Your task to perform on an android device: add a label to a message in the gmail app Image 0: 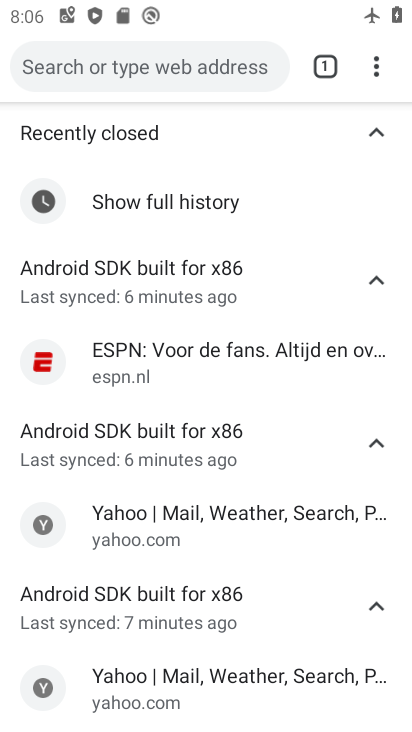
Step 0: press home button
Your task to perform on an android device: add a label to a message in the gmail app Image 1: 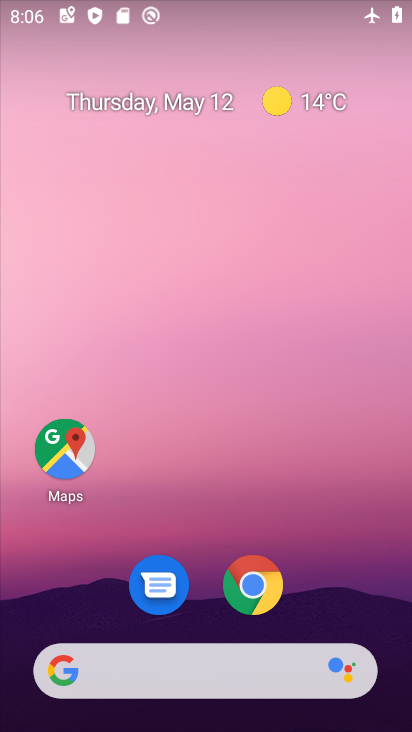
Step 1: drag from (253, 495) to (139, 39)
Your task to perform on an android device: add a label to a message in the gmail app Image 2: 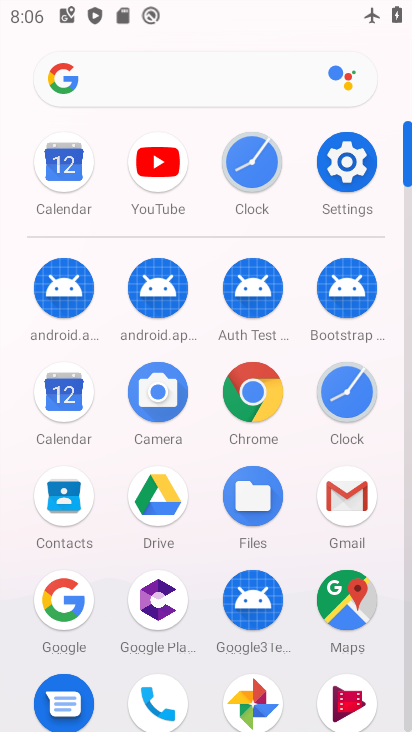
Step 2: click (332, 485)
Your task to perform on an android device: add a label to a message in the gmail app Image 3: 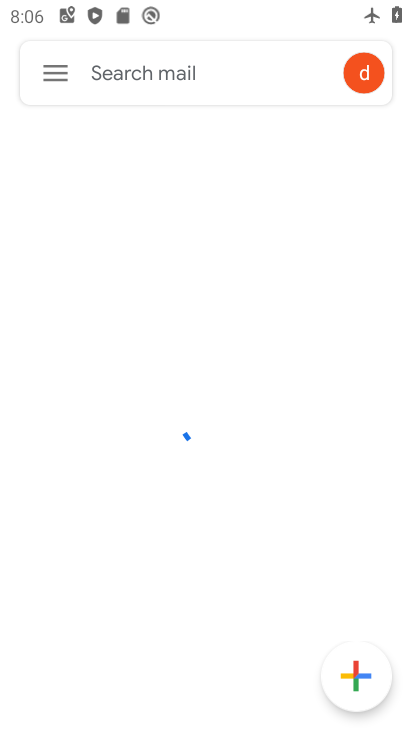
Step 3: click (45, 67)
Your task to perform on an android device: add a label to a message in the gmail app Image 4: 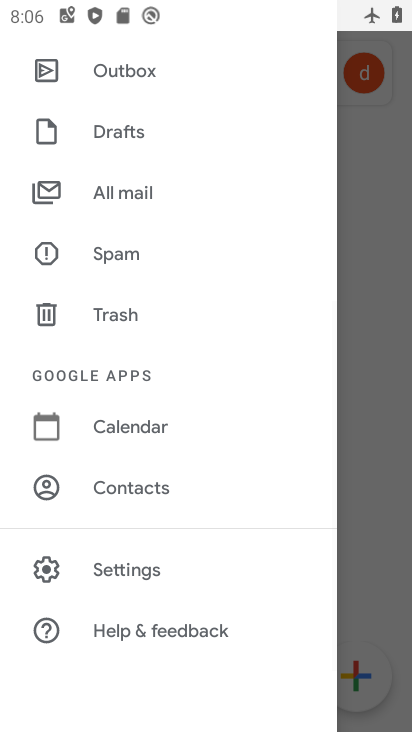
Step 4: click (144, 197)
Your task to perform on an android device: add a label to a message in the gmail app Image 5: 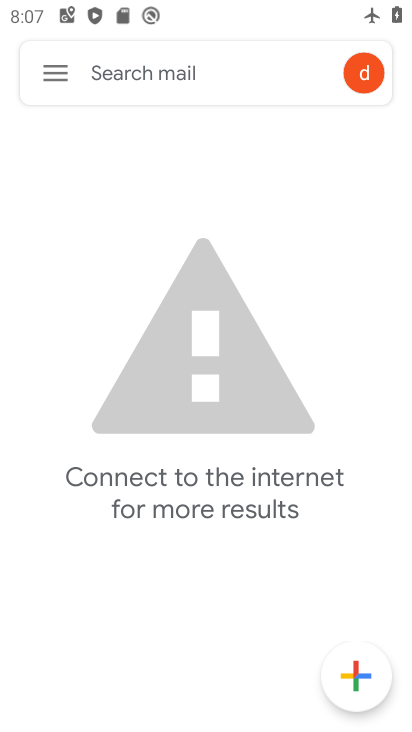
Step 5: task complete